Your task to perform on an android device: Open notification settings Image 0: 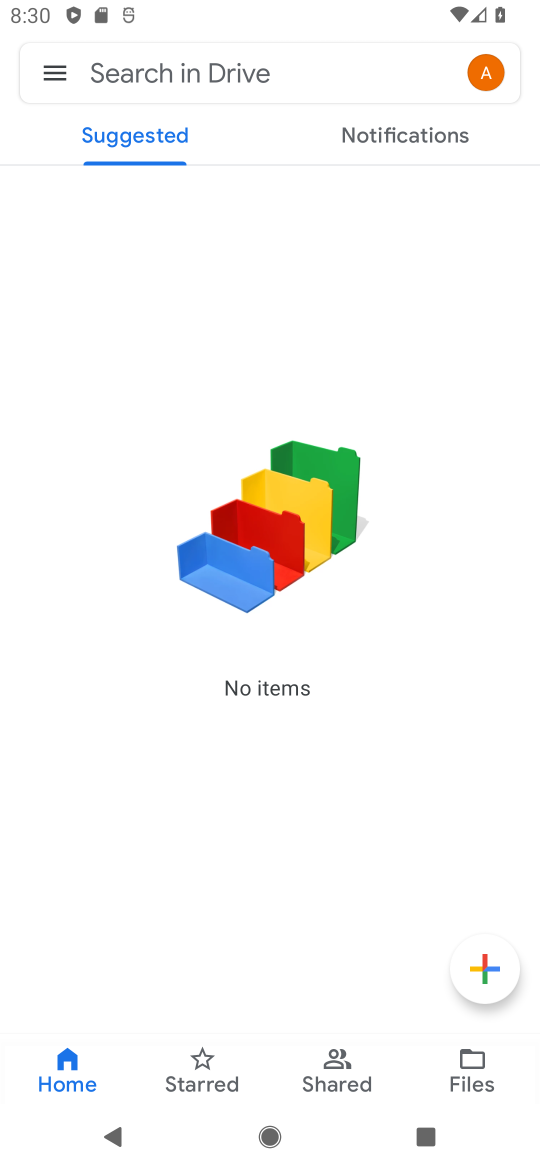
Step 0: press home button
Your task to perform on an android device: Open notification settings Image 1: 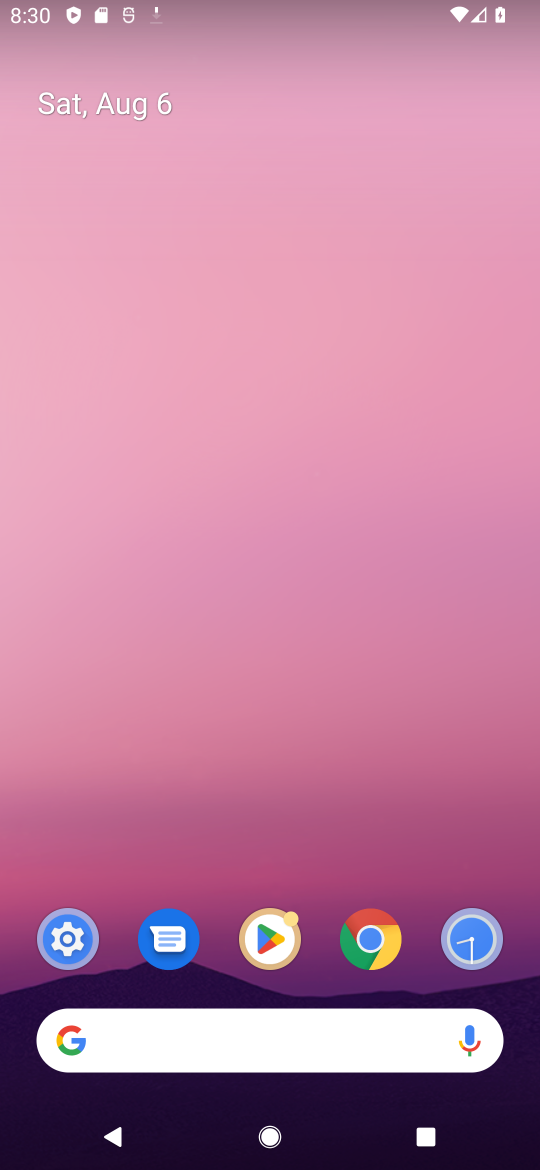
Step 1: drag from (302, 324) to (302, 197)
Your task to perform on an android device: Open notification settings Image 2: 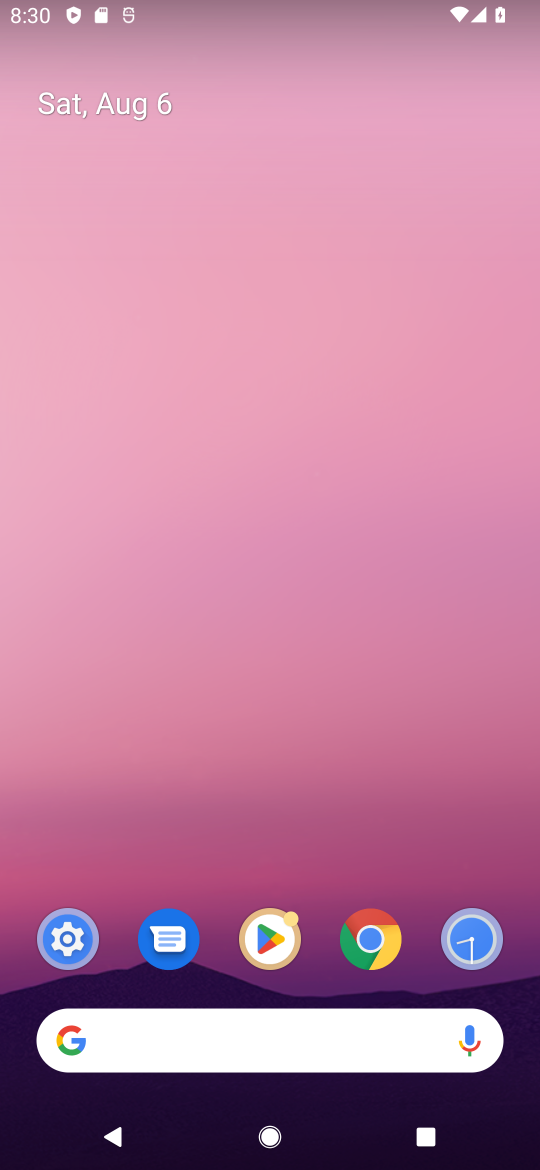
Step 2: drag from (300, 977) to (0, 617)
Your task to perform on an android device: Open notification settings Image 3: 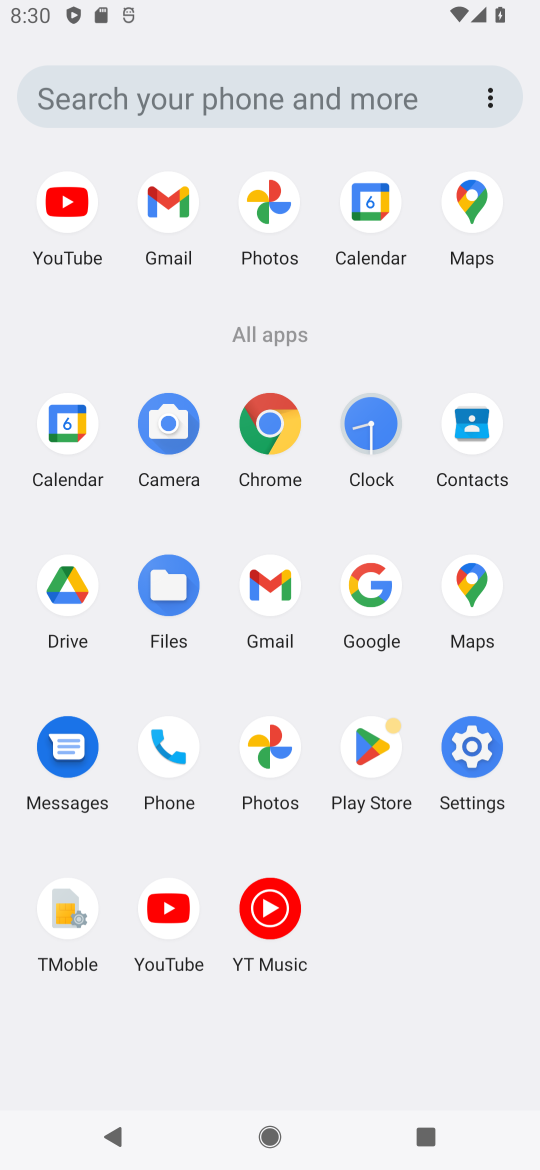
Step 3: click (481, 737)
Your task to perform on an android device: Open notification settings Image 4: 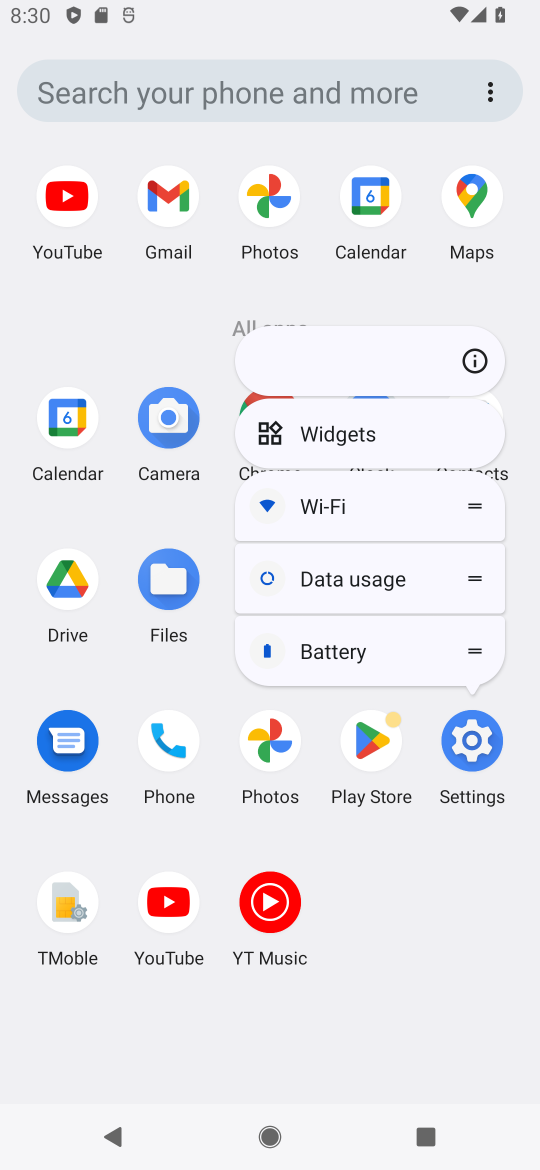
Step 4: click (490, 757)
Your task to perform on an android device: Open notification settings Image 5: 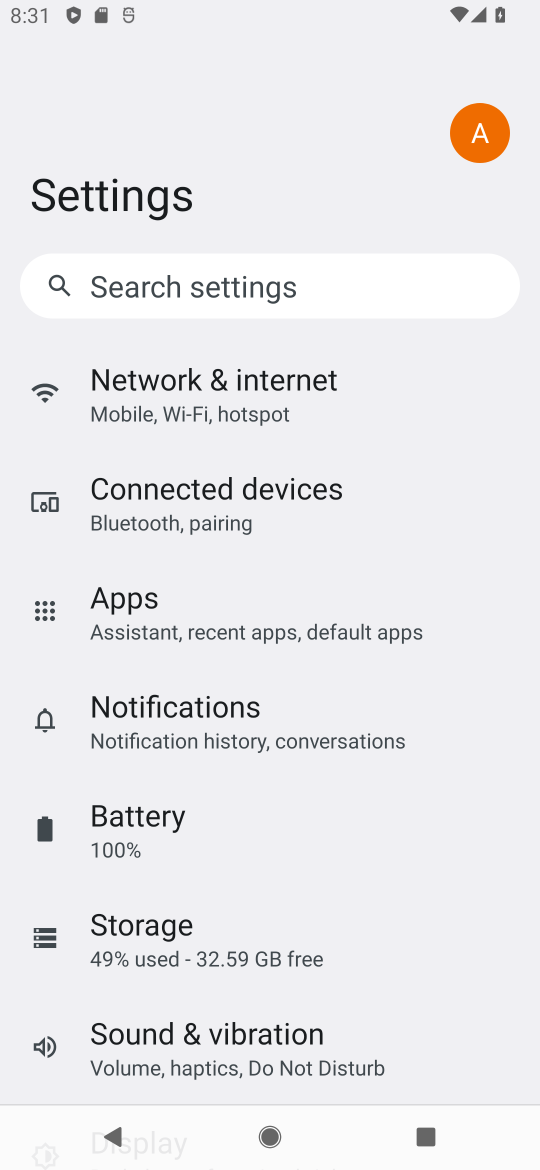
Step 5: click (120, 729)
Your task to perform on an android device: Open notification settings Image 6: 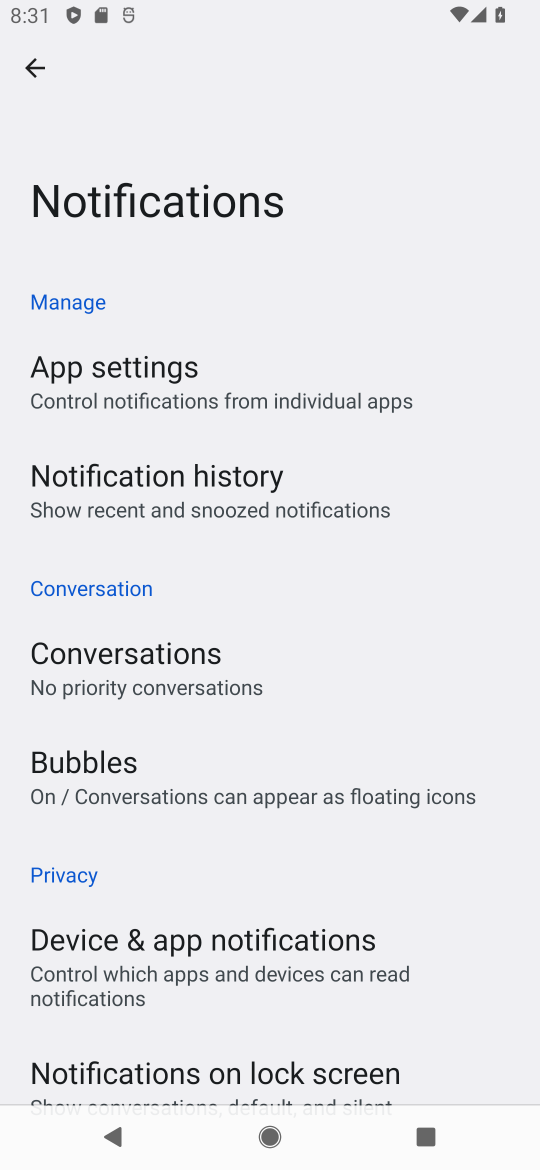
Step 6: drag from (158, 969) to (126, 435)
Your task to perform on an android device: Open notification settings Image 7: 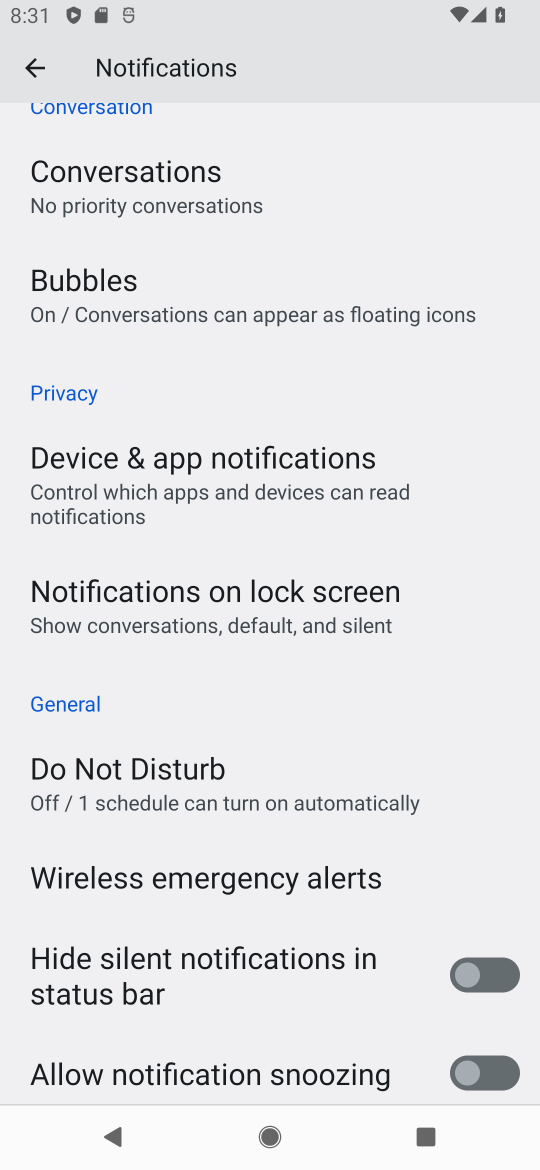
Step 7: click (154, 499)
Your task to perform on an android device: Open notification settings Image 8: 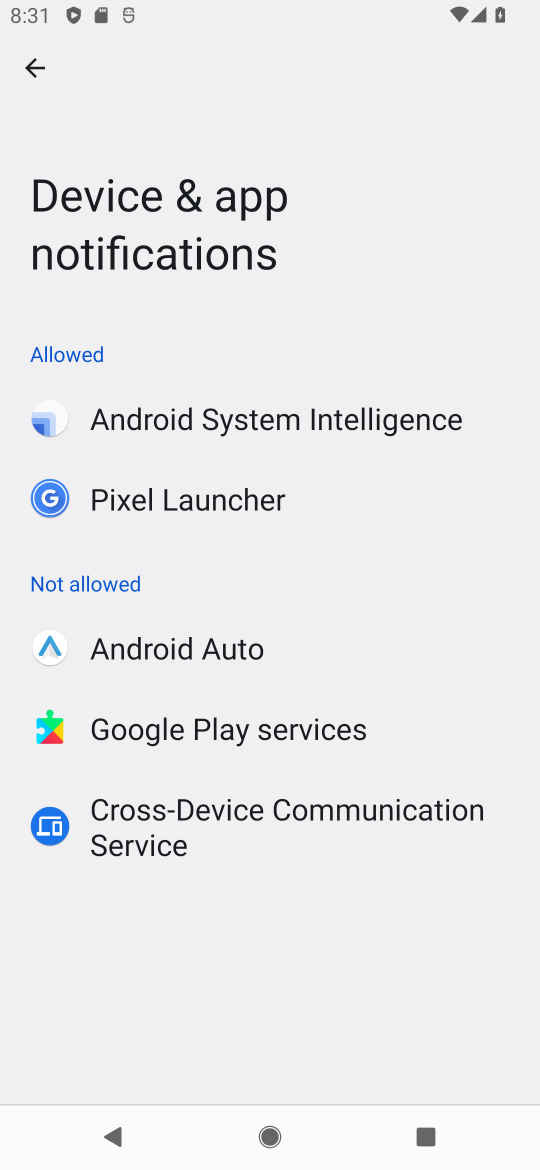
Step 8: task complete